Your task to perform on an android device: Go to network settings Image 0: 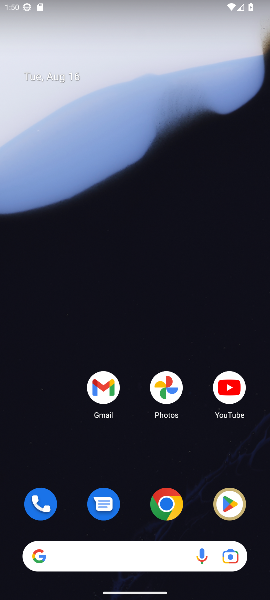
Step 0: drag from (134, 491) to (101, 9)
Your task to perform on an android device: Go to network settings Image 1: 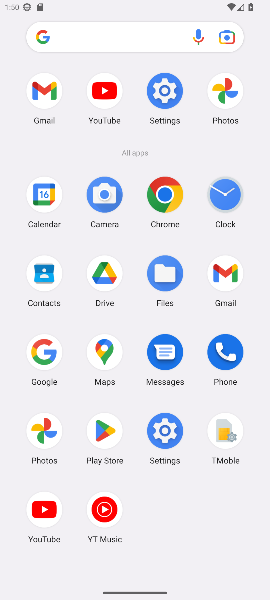
Step 1: click (170, 89)
Your task to perform on an android device: Go to network settings Image 2: 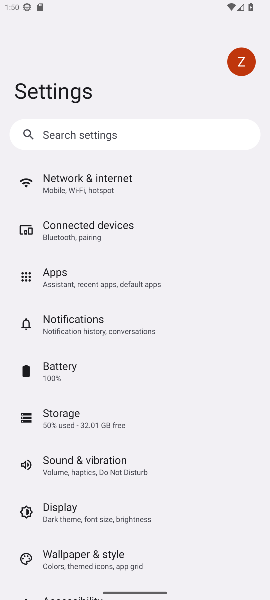
Step 2: click (80, 175)
Your task to perform on an android device: Go to network settings Image 3: 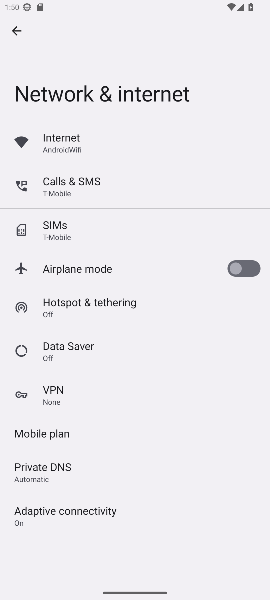
Step 3: task complete